Your task to perform on an android device: Go to Yahoo.com Image 0: 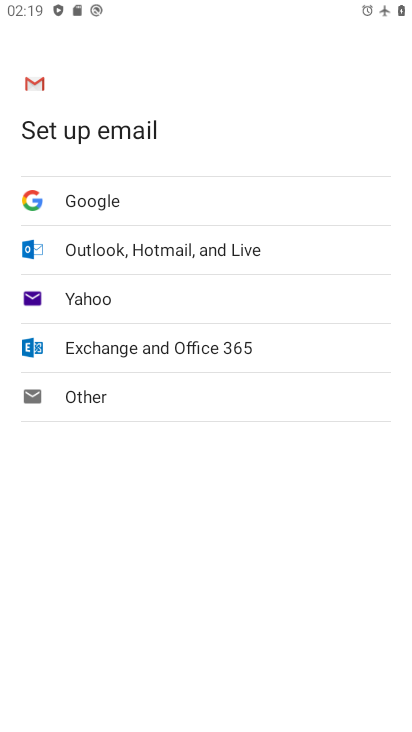
Step 0: press home button
Your task to perform on an android device: Go to Yahoo.com Image 1: 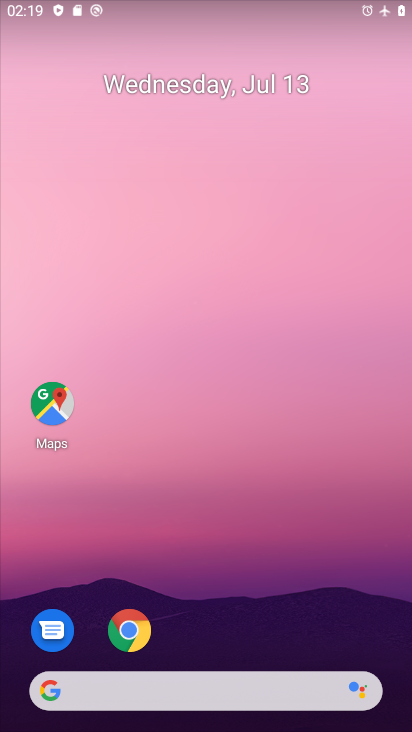
Step 1: click (132, 635)
Your task to perform on an android device: Go to Yahoo.com Image 2: 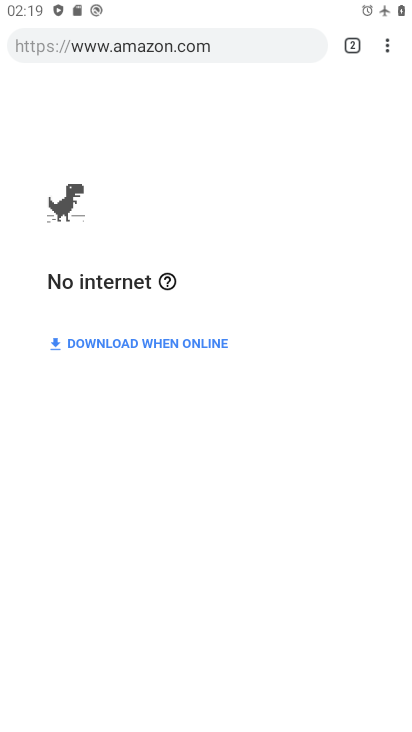
Step 2: click (352, 54)
Your task to perform on an android device: Go to Yahoo.com Image 3: 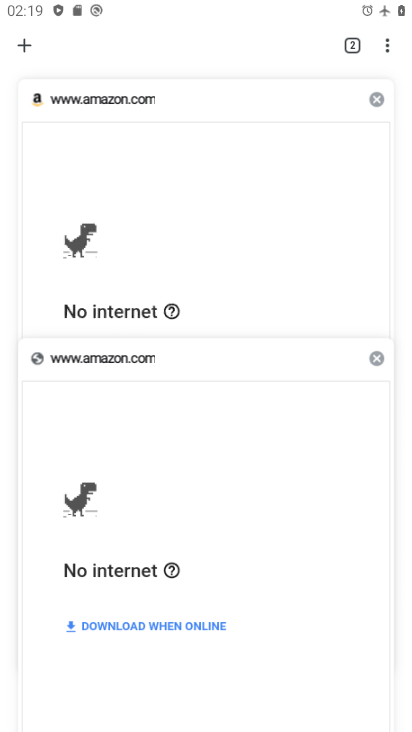
Step 3: task complete